Your task to perform on an android device: toggle location history Image 0: 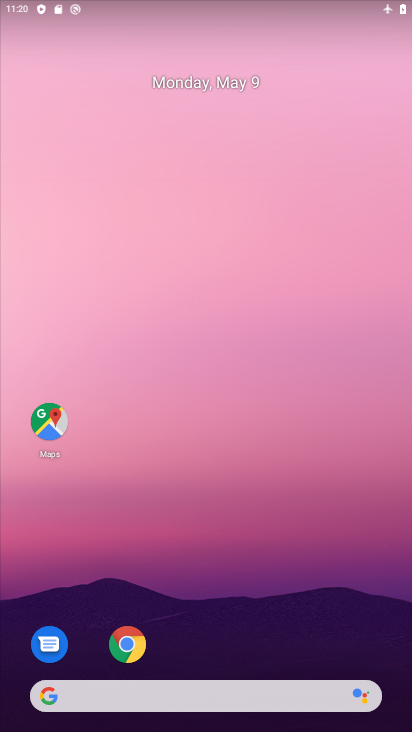
Step 0: drag from (232, 647) to (228, 241)
Your task to perform on an android device: toggle location history Image 1: 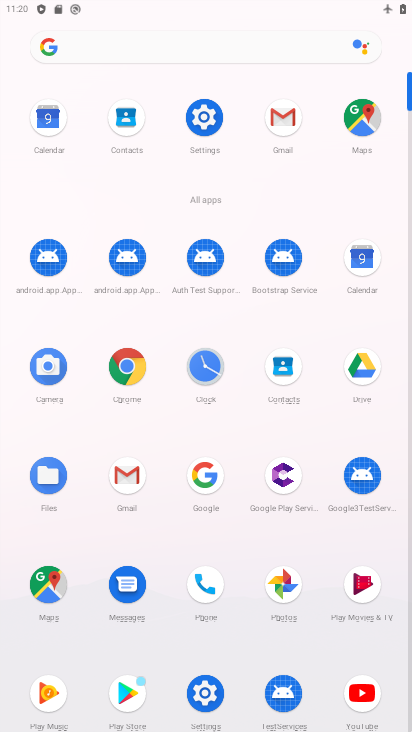
Step 1: click (210, 135)
Your task to perform on an android device: toggle location history Image 2: 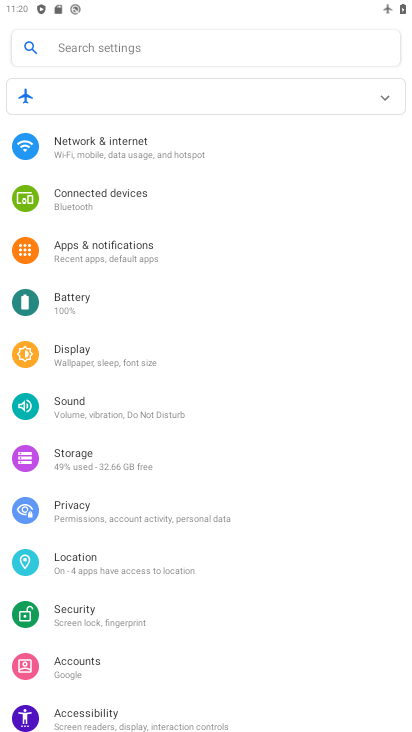
Step 2: click (80, 573)
Your task to perform on an android device: toggle location history Image 3: 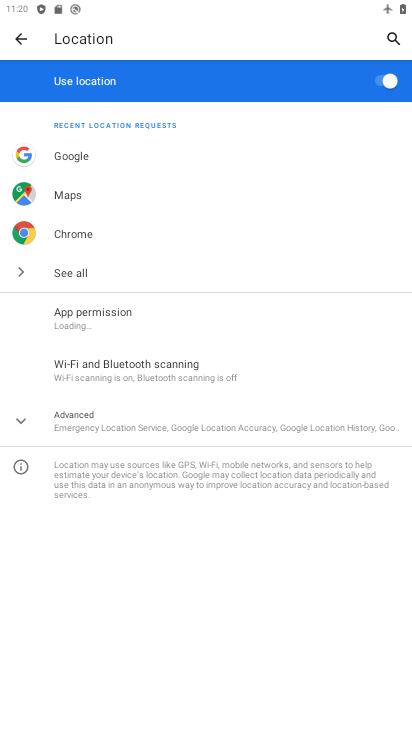
Step 3: click (132, 420)
Your task to perform on an android device: toggle location history Image 4: 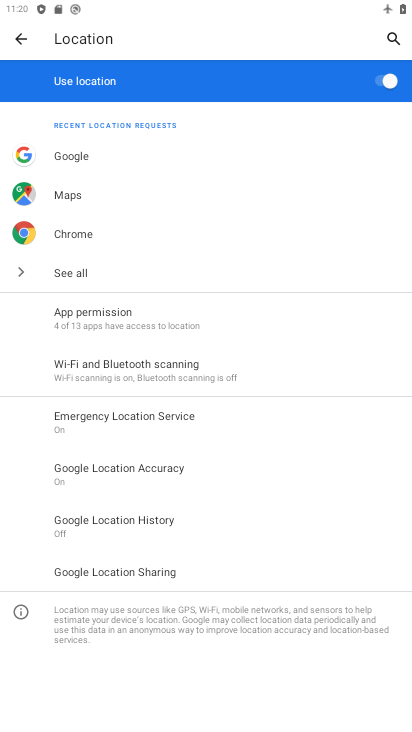
Step 4: click (196, 526)
Your task to perform on an android device: toggle location history Image 5: 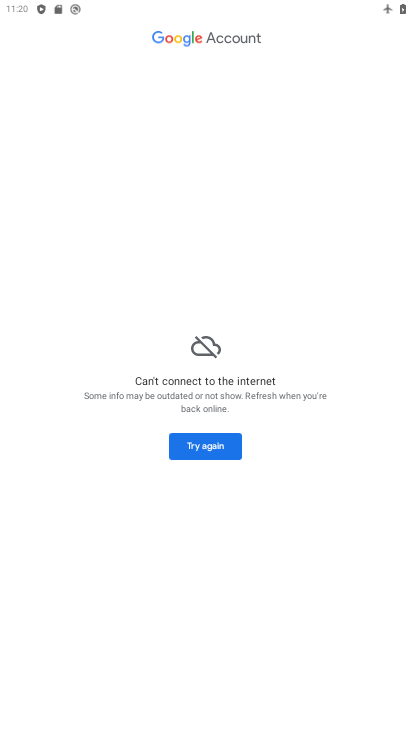
Step 5: task complete